Your task to perform on an android device: turn off notifications settings in the gmail app Image 0: 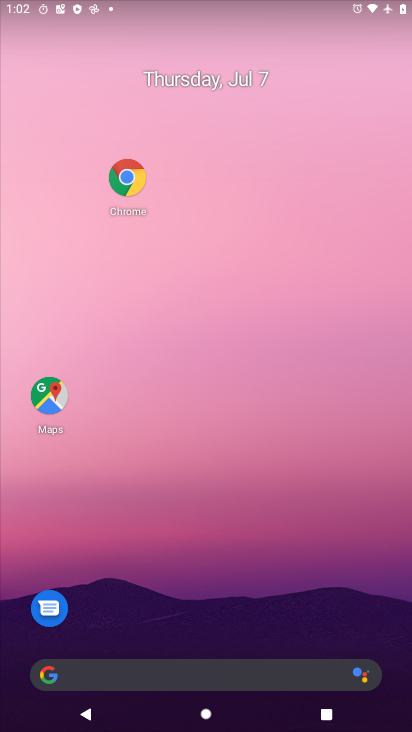
Step 0: drag from (209, 660) to (186, 287)
Your task to perform on an android device: turn off notifications settings in the gmail app Image 1: 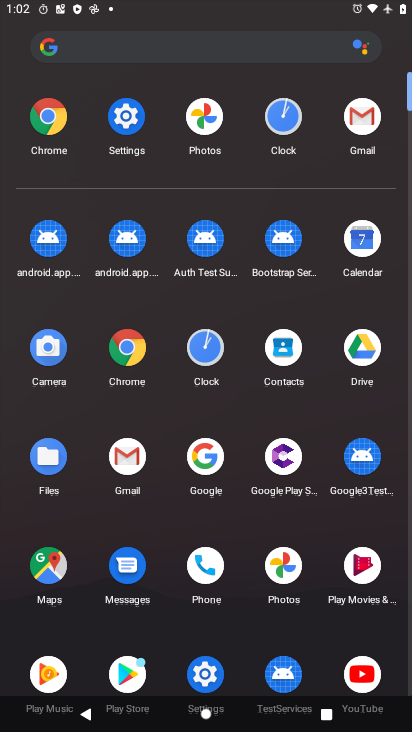
Step 1: click (133, 461)
Your task to perform on an android device: turn off notifications settings in the gmail app Image 2: 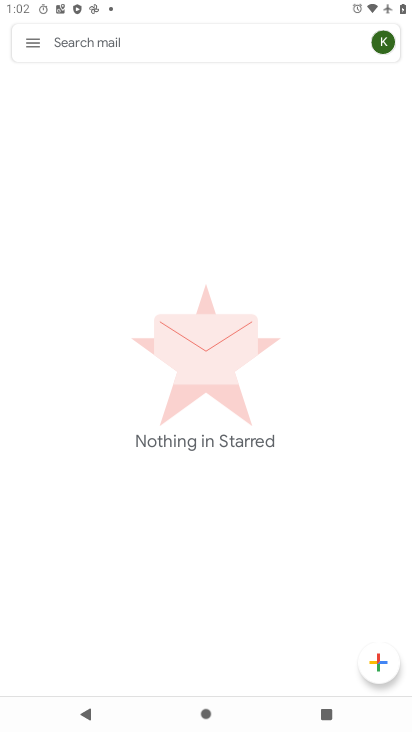
Step 2: click (33, 47)
Your task to perform on an android device: turn off notifications settings in the gmail app Image 3: 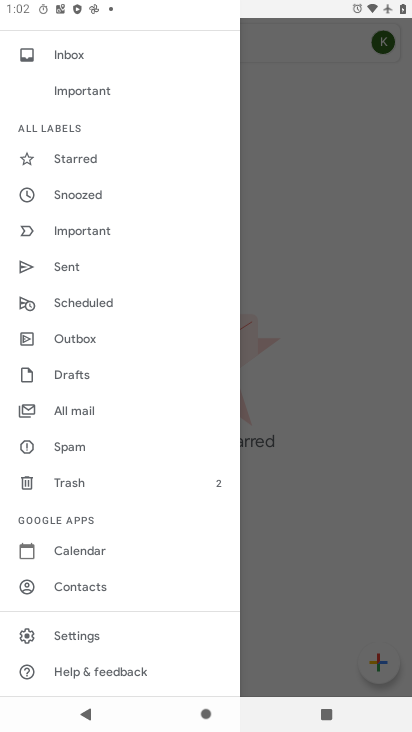
Step 3: click (77, 634)
Your task to perform on an android device: turn off notifications settings in the gmail app Image 4: 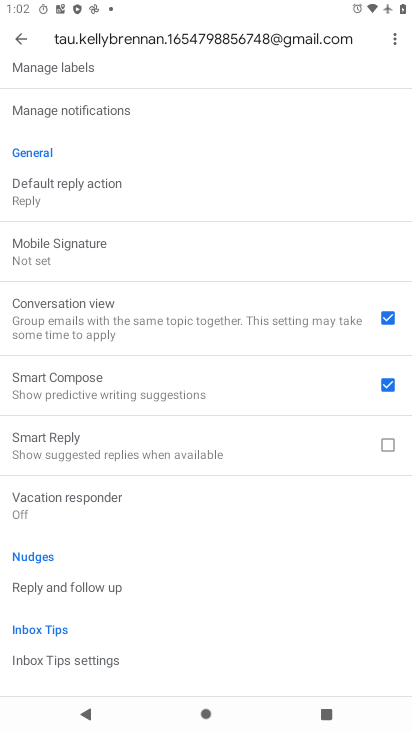
Step 4: click (59, 108)
Your task to perform on an android device: turn off notifications settings in the gmail app Image 5: 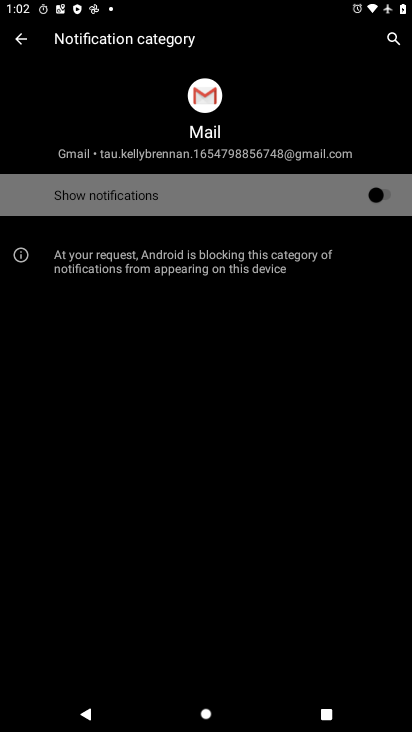
Step 5: task complete